Your task to perform on an android device: delete the emails in spam in the gmail app Image 0: 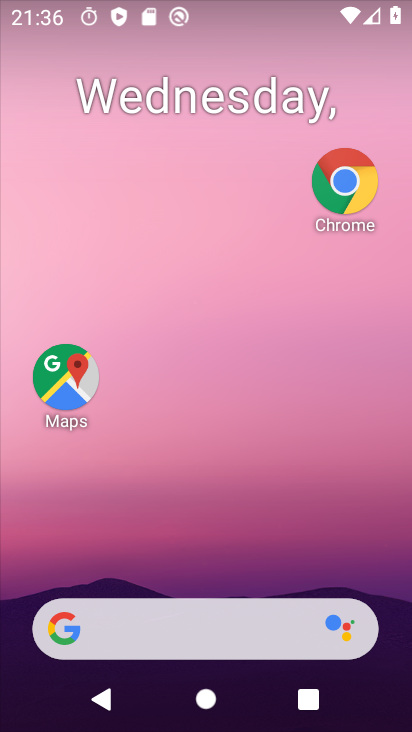
Step 0: drag from (220, 664) to (217, 159)
Your task to perform on an android device: delete the emails in spam in the gmail app Image 1: 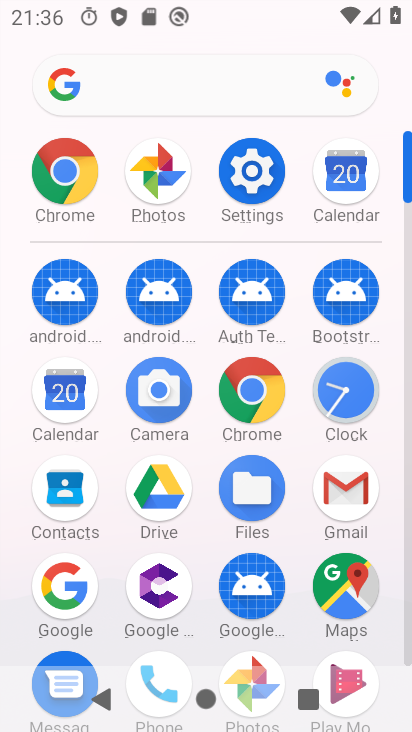
Step 1: click (343, 485)
Your task to perform on an android device: delete the emails in spam in the gmail app Image 2: 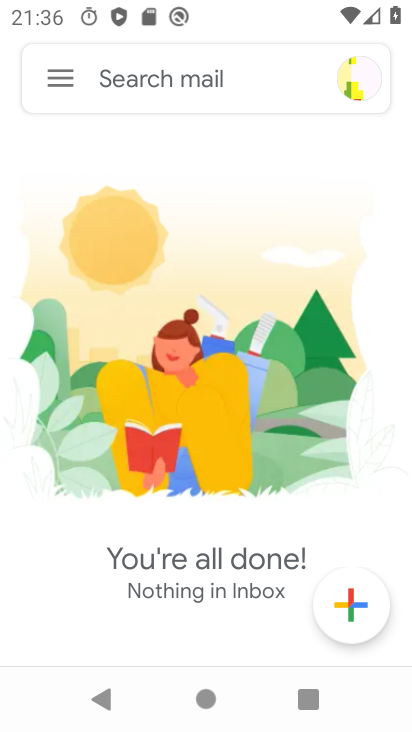
Step 2: click (58, 79)
Your task to perform on an android device: delete the emails in spam in the gmail app Image 3: 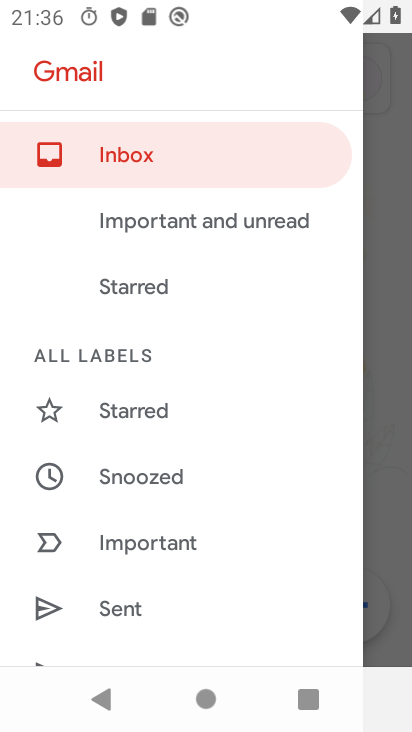
Step 3: drag from (133, 574) to (115, 49)
Your task to perform on an android device: delete the emails in spam in the gmail app Image 4: 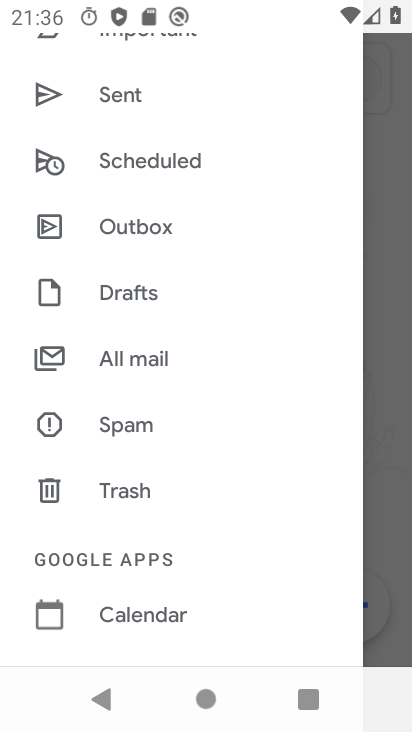
Step 4: click (108, 421)
Your task to perform on an android device: delete the emails in spam in the gmail app Image 5: 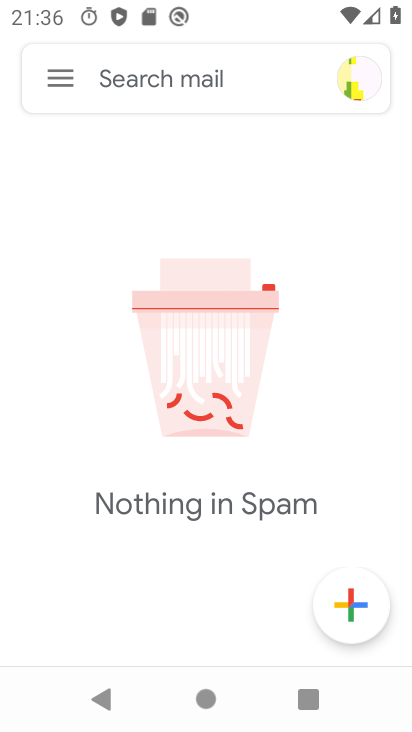
Step 5: task complete